Your task to perform on an android device: Search for beats solo 3 on ebay.com, select the first entry, and add it to the cart. Image 0: 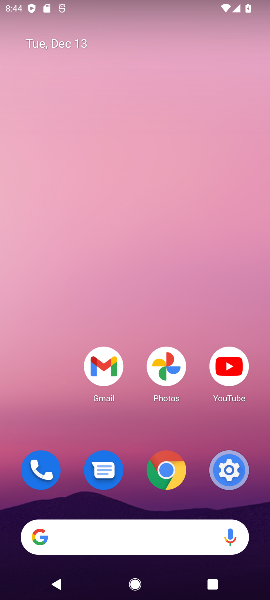
Step 0: click (65, 536)
Your task to perform on an android device: Search for beats solo 3 on ebay.com, select the first entry, and add it to the cart. Image 1: 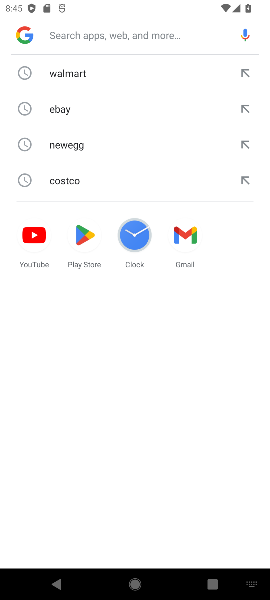
Step 1: type "ebay.com"
Your task to perform on an android device: Search for beats solo 3 on ebay.com, select the first entry, and add it to the cart. Image 2: 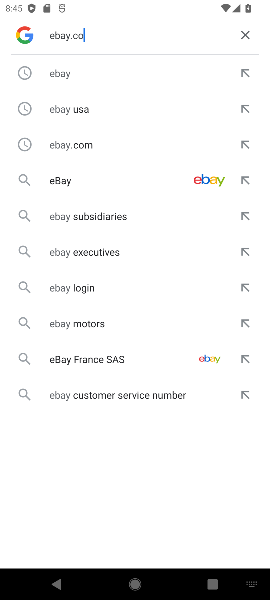
Step 2: press enter
Your task to perform on an android device: Search for beats solo 3 on ebay.com, select the first entry, and add it to the cart. Image 3: 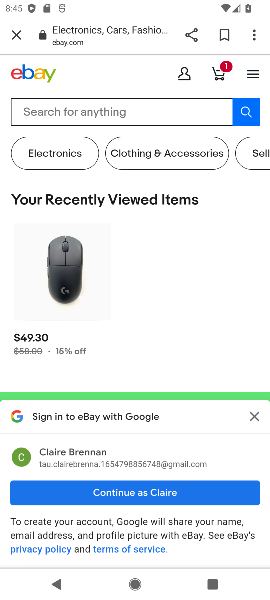
Step 3: click (83, 109)
Your task to perform on an android device: Search for beats solo 3 on ebay.com, select the first entry, and add it to the cart. Image 4: 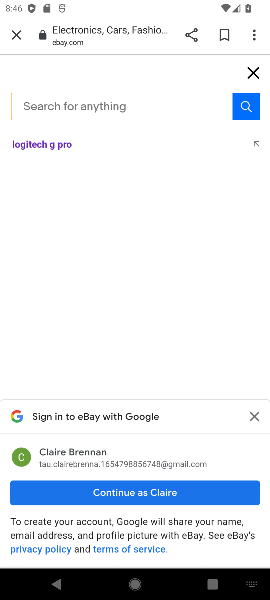
Step 4: type "beats solo 3"
Your task to perform on an android device: Search for beats solo 3 on ebay.com, select the first entry, and add it to the cart. Image 5: 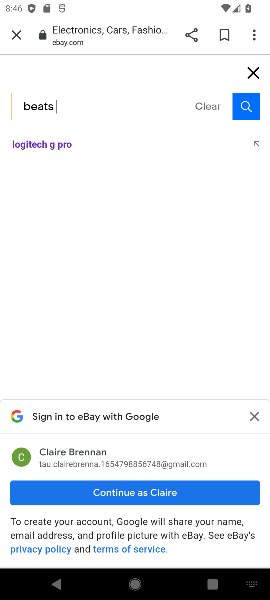
Step 5: press enter
Your task to perform on an android device: Search for beats solo 3 on ebay.com, select the first entry, and add it to the cart. Image 6: 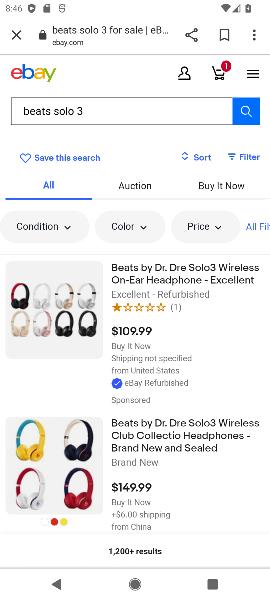
Step 6: click (169, 289)
Your task to perform on an android device: Search for beats solo 3 on ebay.com, select the first entry, and add it to the cart. Image 7: 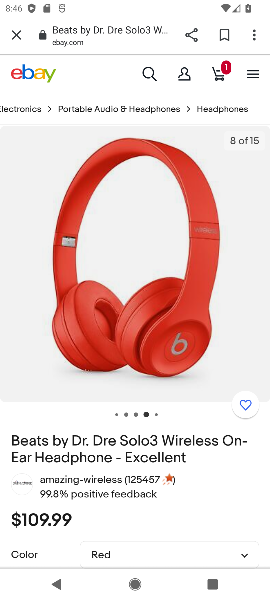
Step 7: drag from (164, 523) to (170, 315)
Your task to perform on an android device: Search for beats solo 3 on ebay.com, select the first entry, and add it to the cart. Image 8: 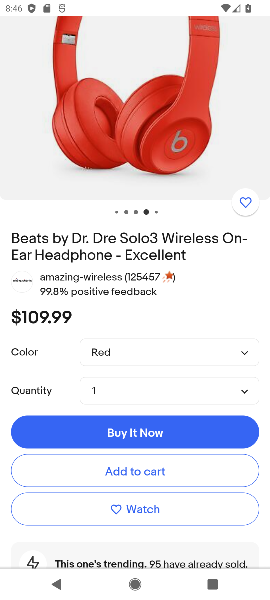
Step 8: click (118, 474)
Your task to perform on an android device: Search for beats solo 3 on ebay.com, select the first entry, and add it to the cart. Image 9: 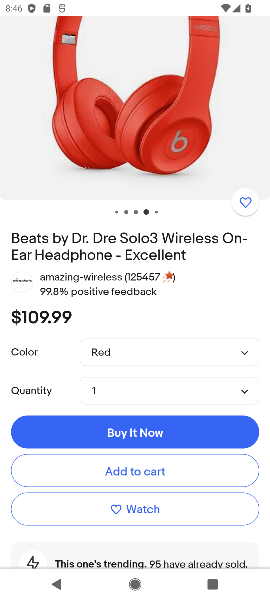
Step 9: click (115, 475)
Your task to perform on an android device: Search for beats solo 3 on ebay.com, select the first entry, and add it to the cart. Image 10: 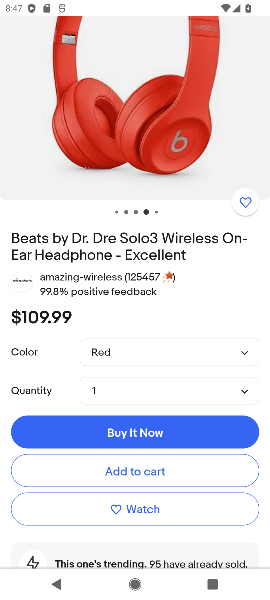
Step 10: click (120, 470)
Your task to perform on an android device: Search for beats solo 3 on ebay.com, select the first entry, and add it to the cart. Image 11: 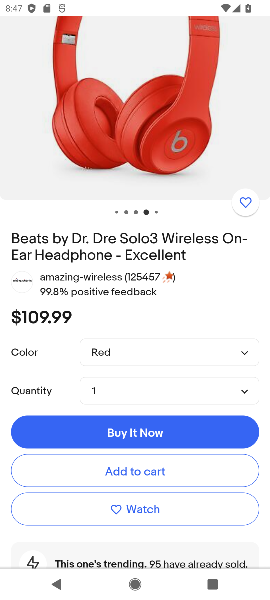
Step 11: task complete